Your task to perform on an android device: install app "DoorDash - Food Delivery" Image 0: 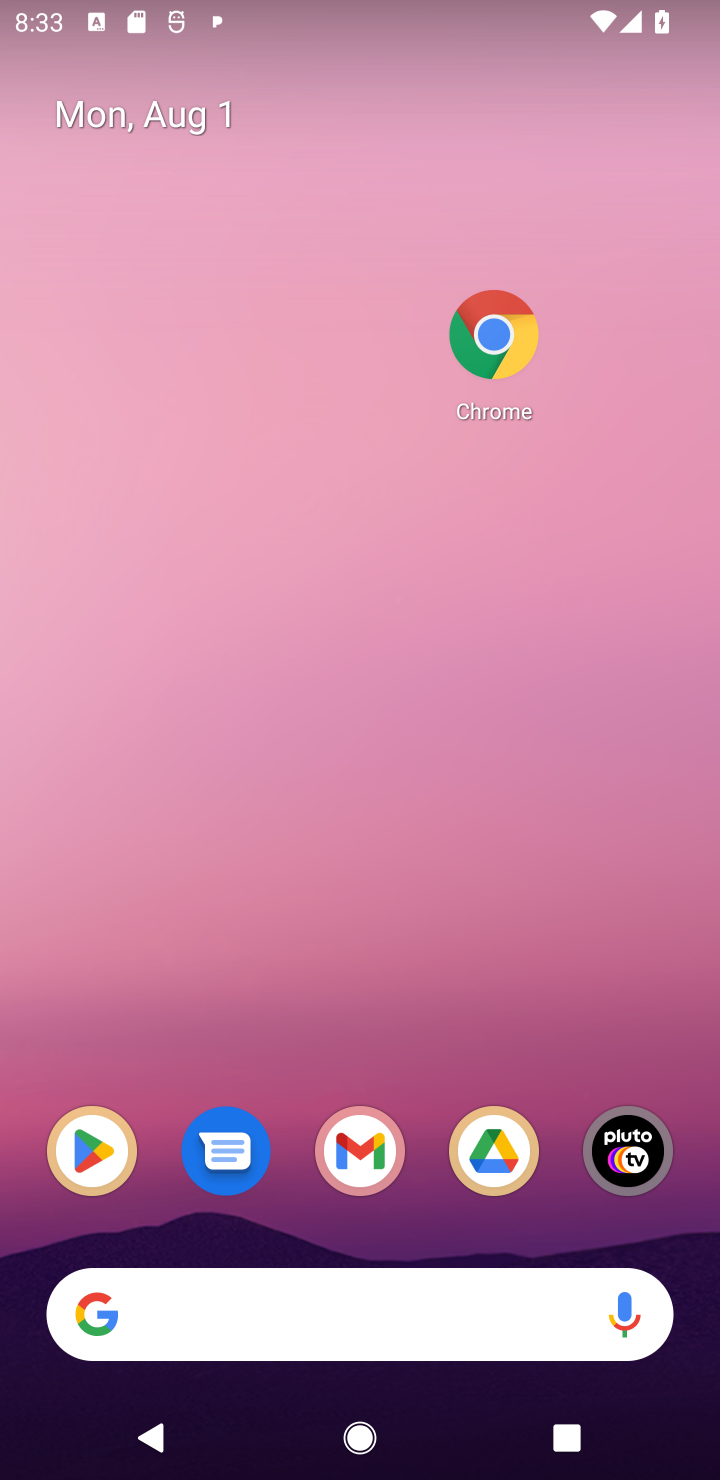
Step 0: click (95, 1168)
Your task to perform on an android device: install app "DoorDash - Food Delivery" Image 1: 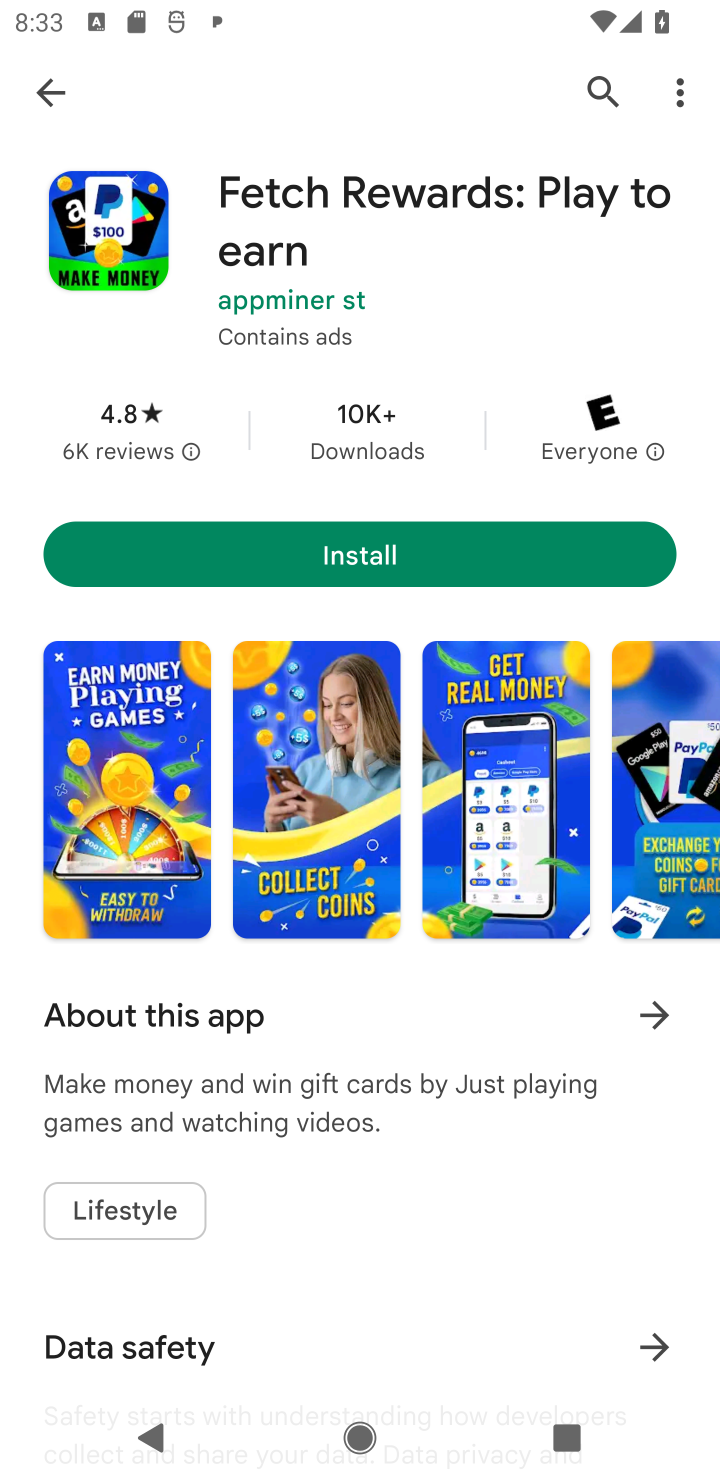
Step 1: click (599, 84)
Your task to perform on an android device: install app "DoorDash - Food Delivery" Image 2: 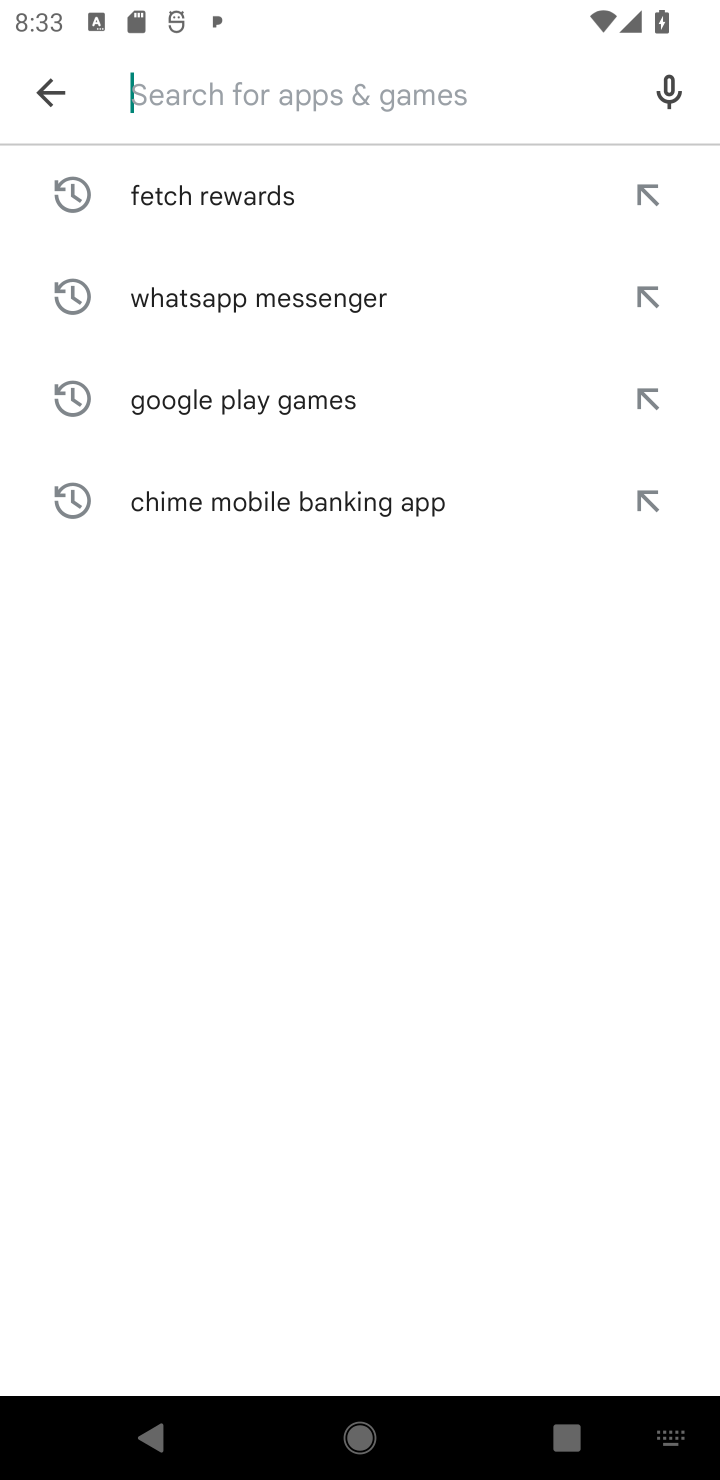
Step 2: type "DoorDash - Food Delivery"
Your task to perform on an android device: install app "DoorDash - Food Delivery" Image 3: 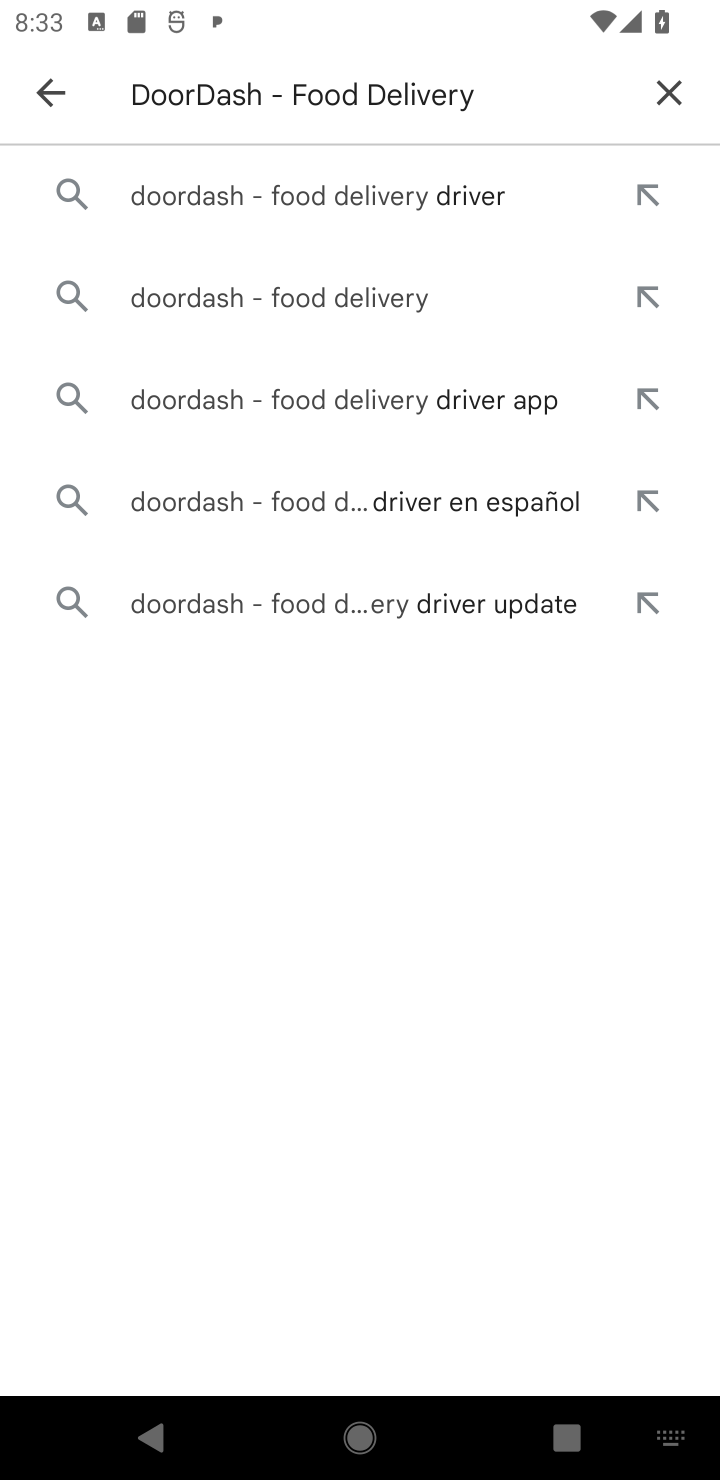
Step 3: click (235, 201)
Your task to perform on an android device: install app "DoorDash - Food Delivery" Image 4: 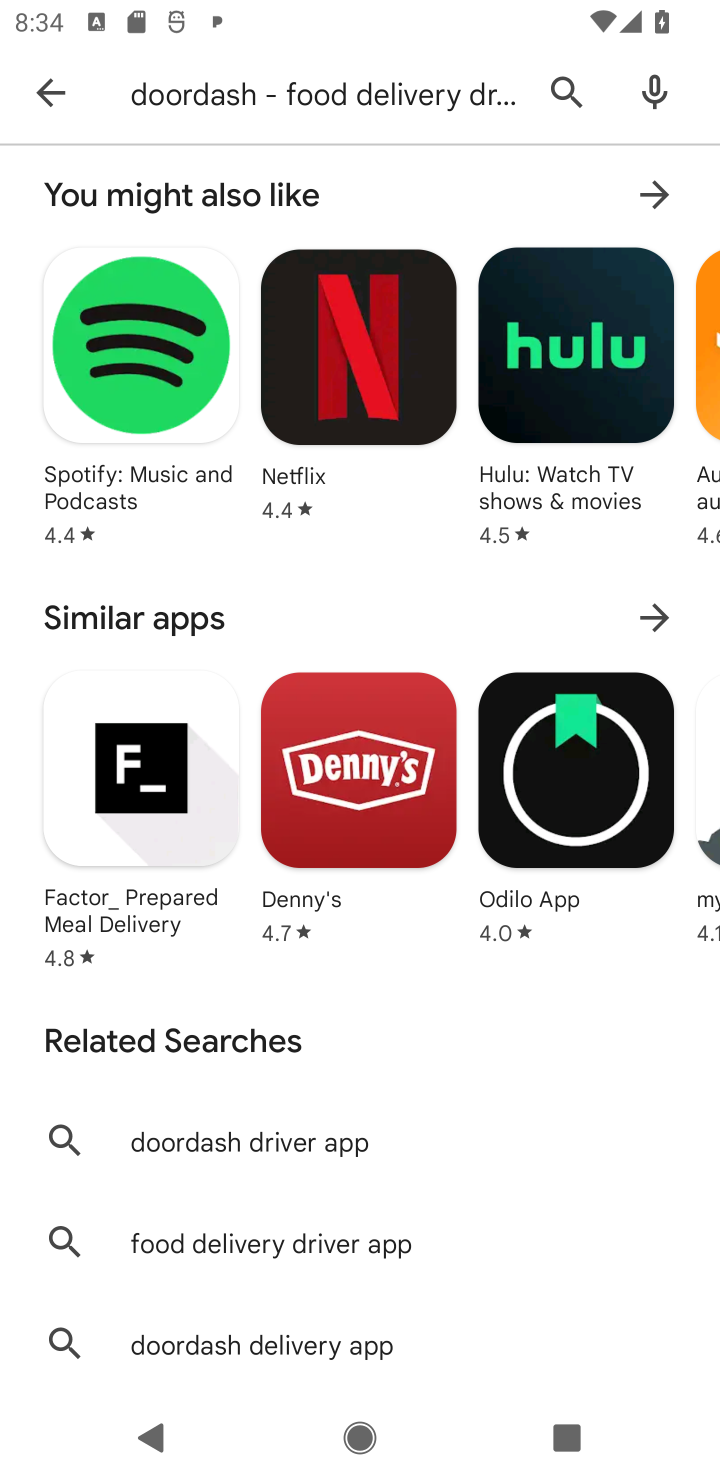
Step 4: click (510, 102)
Your task to perform on an android device: install app "DoorDash - Food Delivery" Image 5: 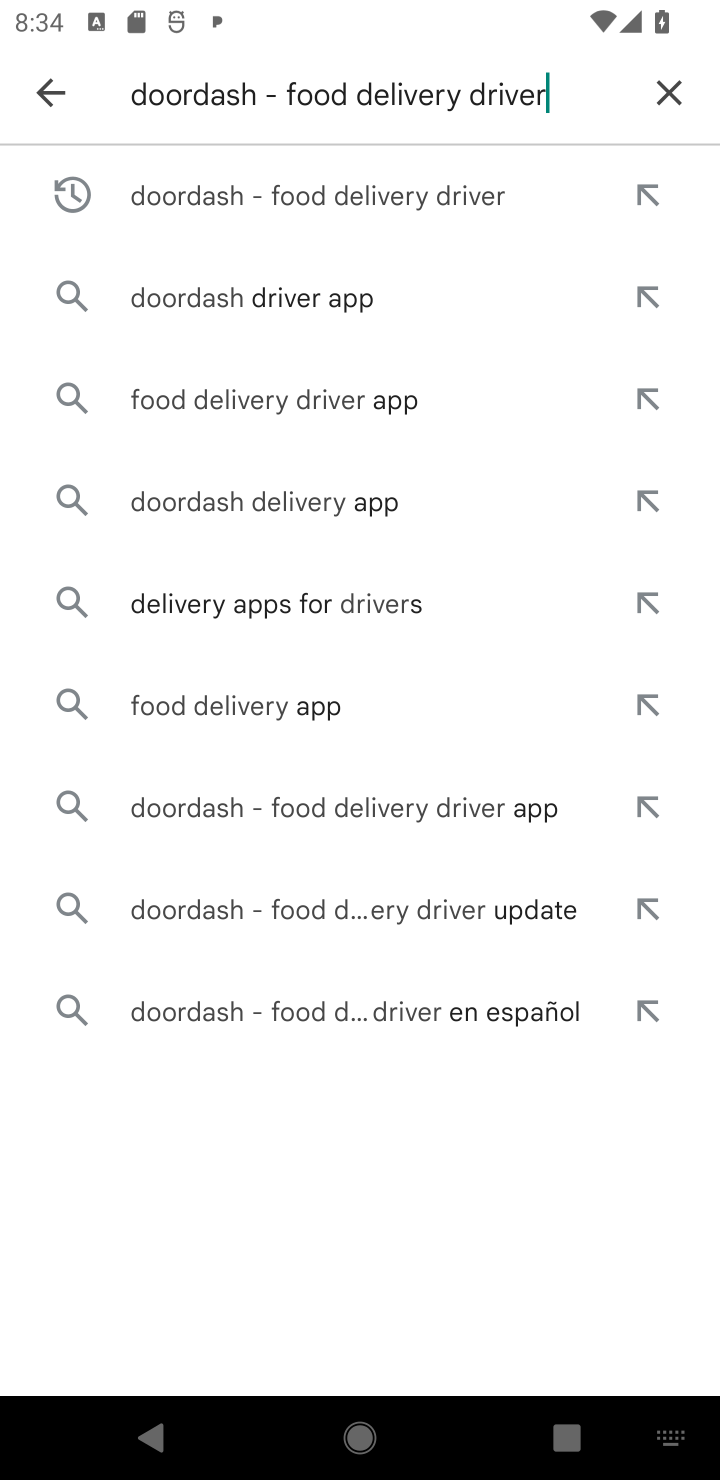
Step 5: click (281, 197)
Your task to perform on an android device: install app "DoorDash - Food Delivery" Image 6: 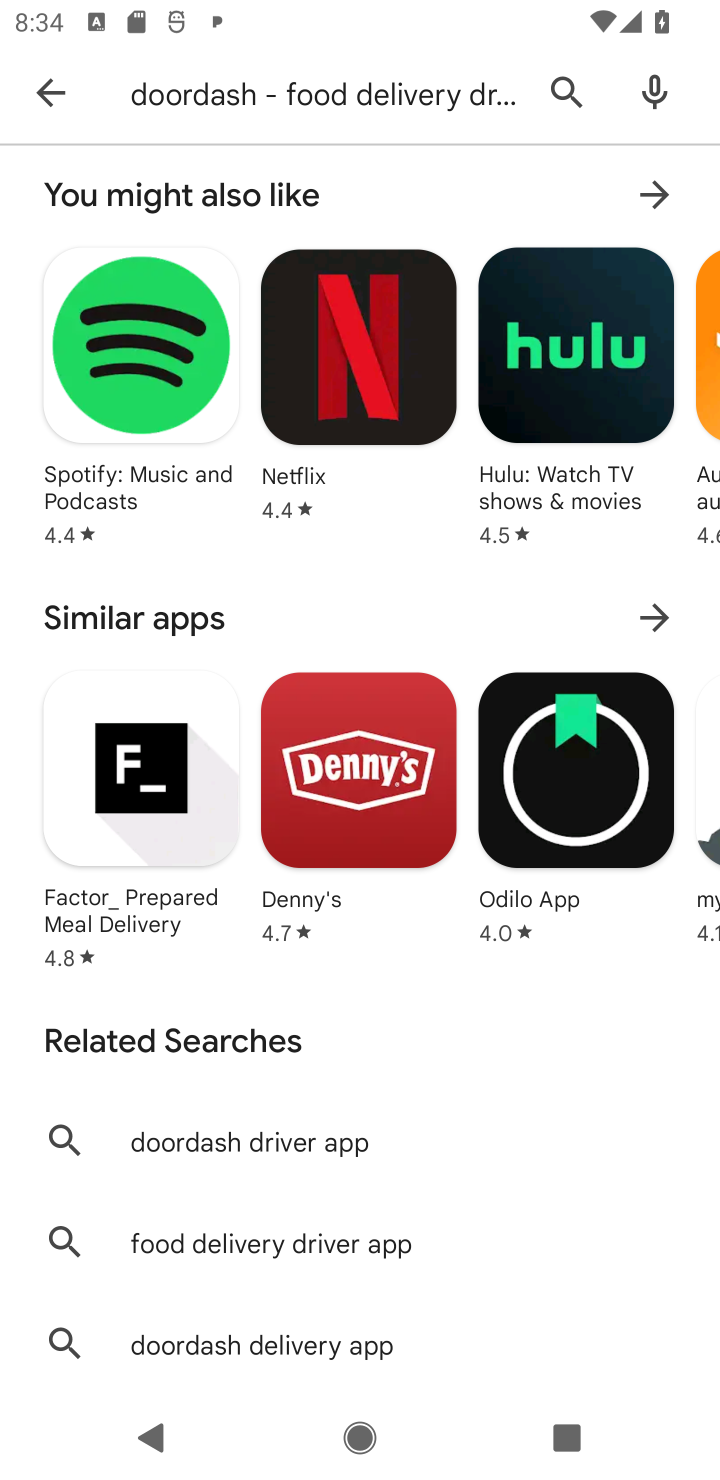
Step 6: drag from (471, 1033) to (503, 519)
Your task to perform on an android device: install app "DoorDash - Food Delivery" Image 7: 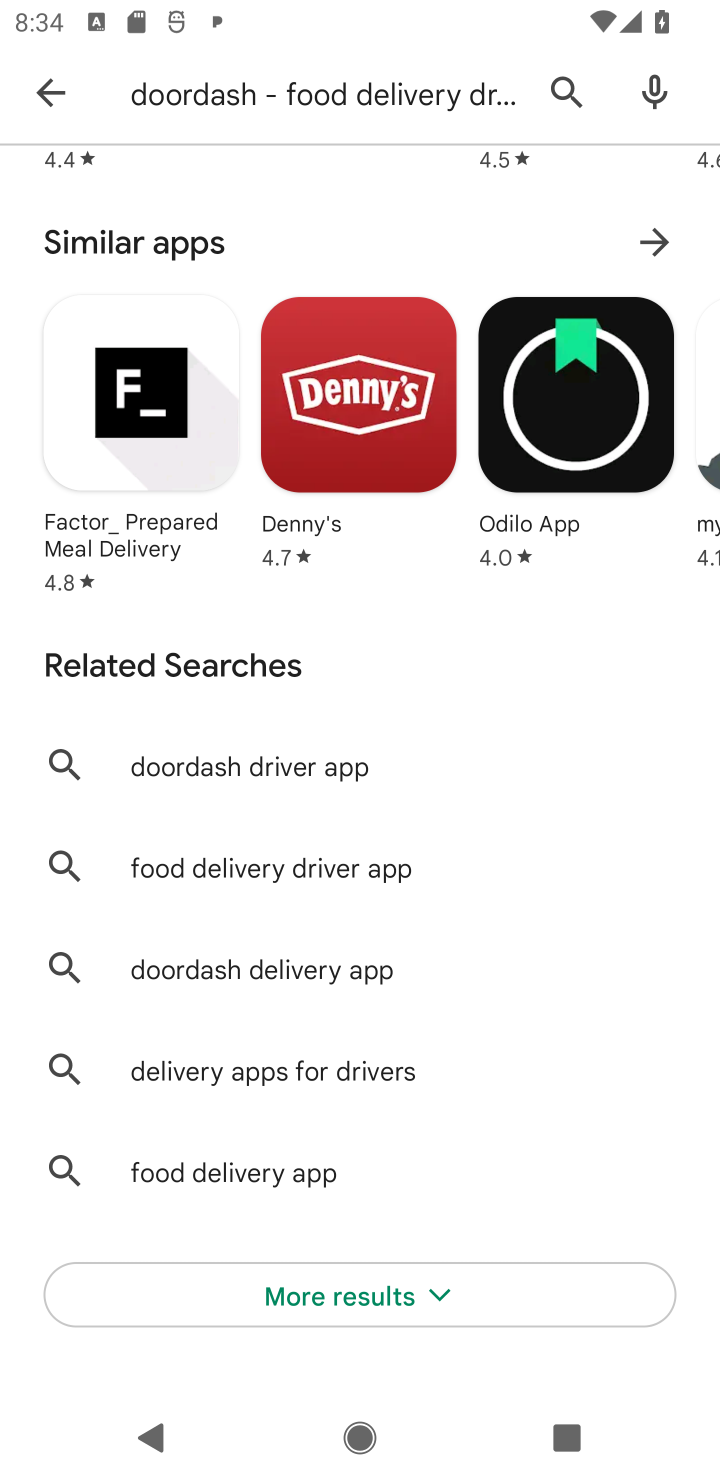
Step 7: drag from (512, 702) to (534, 1041)
Your task to perform on an android device: install app "DoorDash - Food Delivery" Image 8: 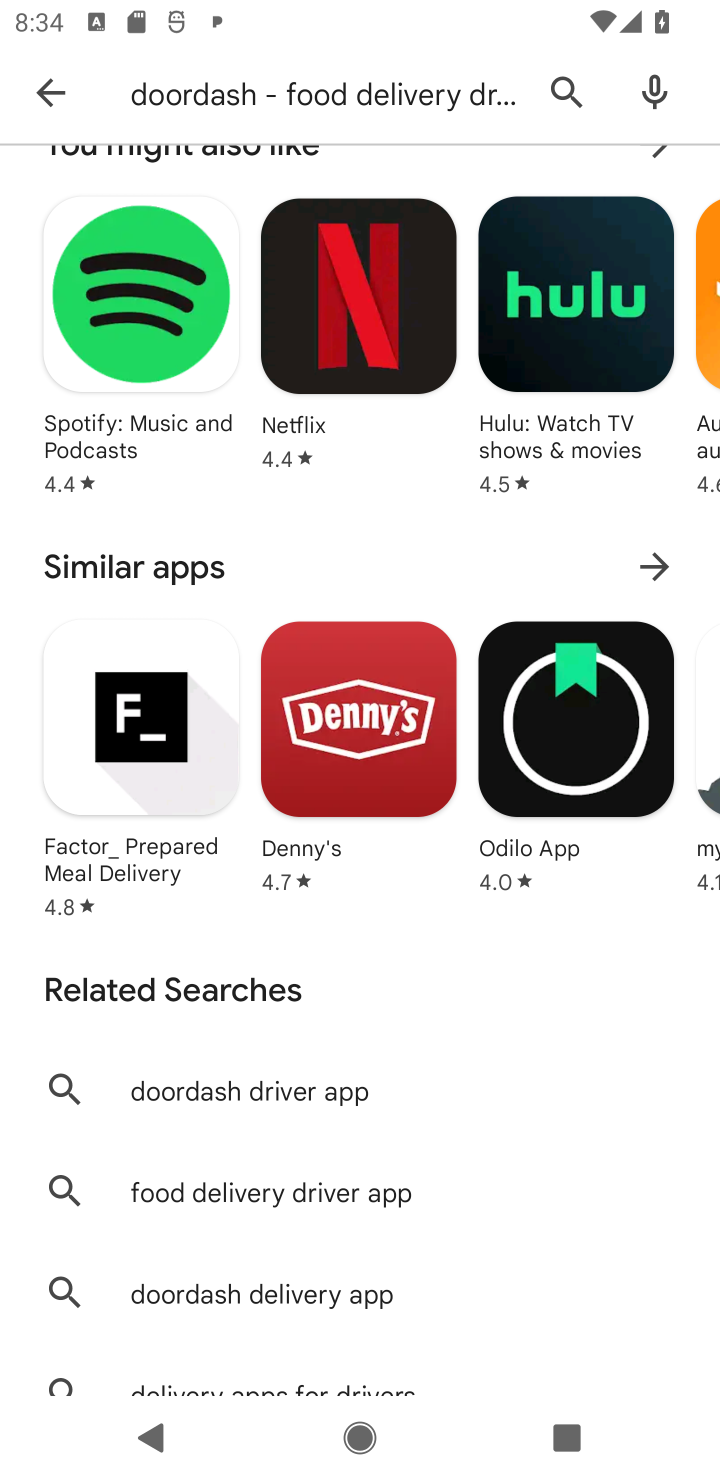
Step 8: drag from (273, 461) to (199, 1095)
Your task to perform on an android device: install app "DoorDash - Food Delivery" Image 9: 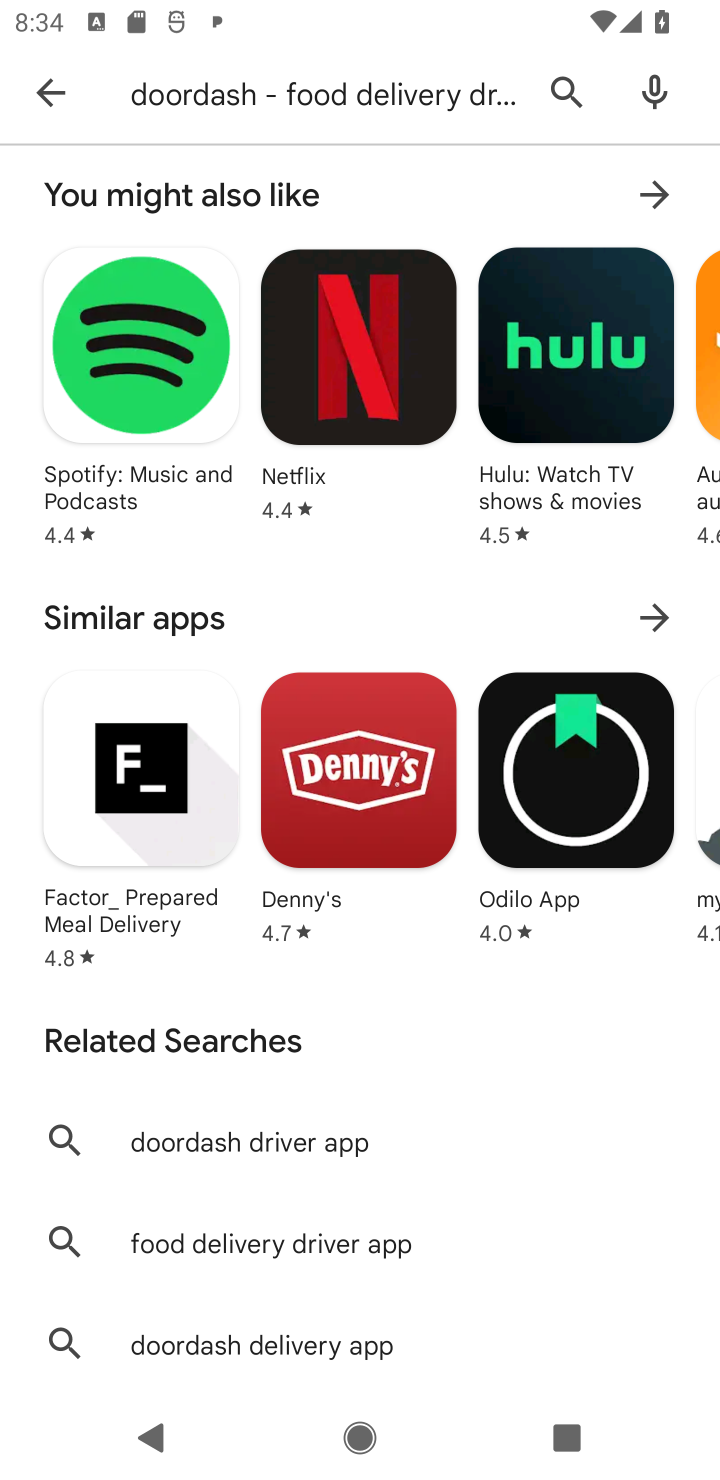
Step 9: drag from (363, 200) to (349, 666)
Your task to perform on an android device: install app "DoorDash - Food Delivery" Image 10: 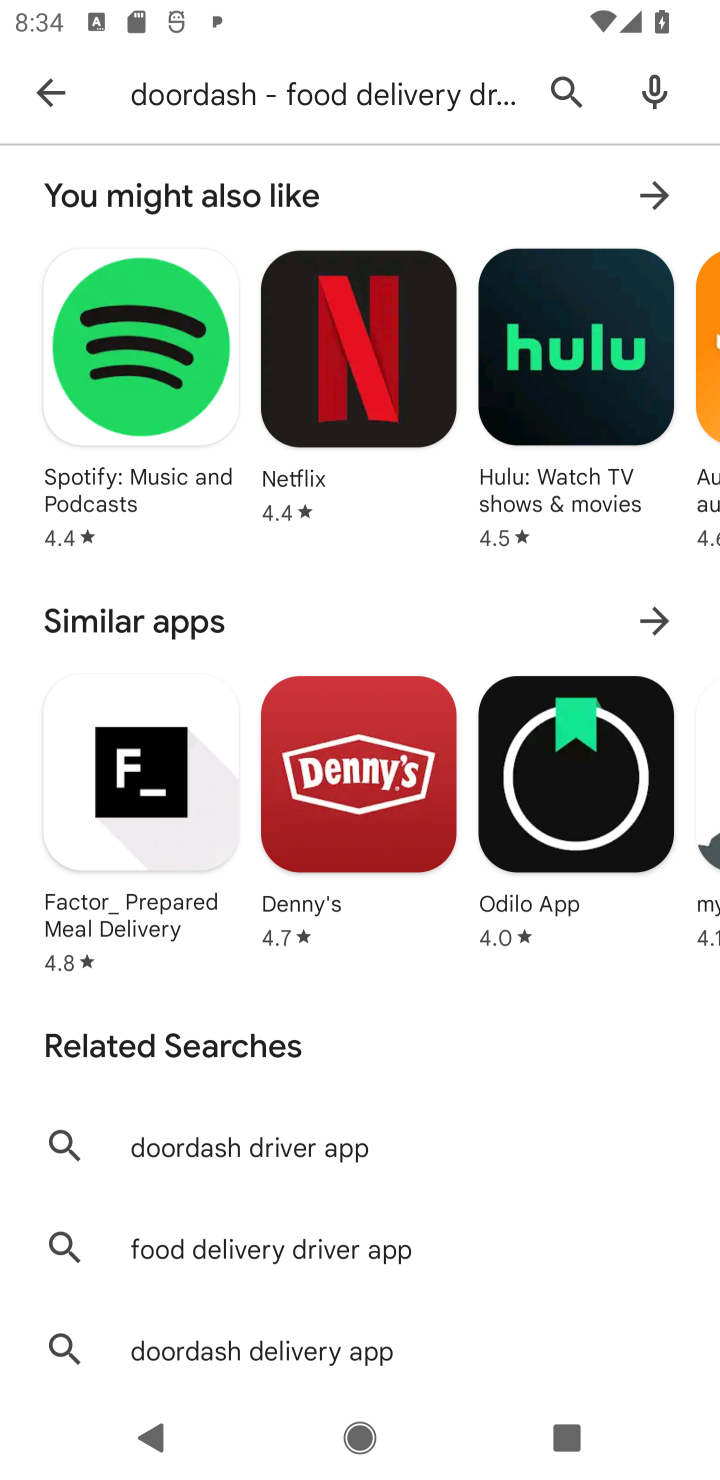
Step 10: drag from (594, 413) to (0, 404)
Your task to perform on an android device: install app "DoorDash - Food Delivery" Image 11: 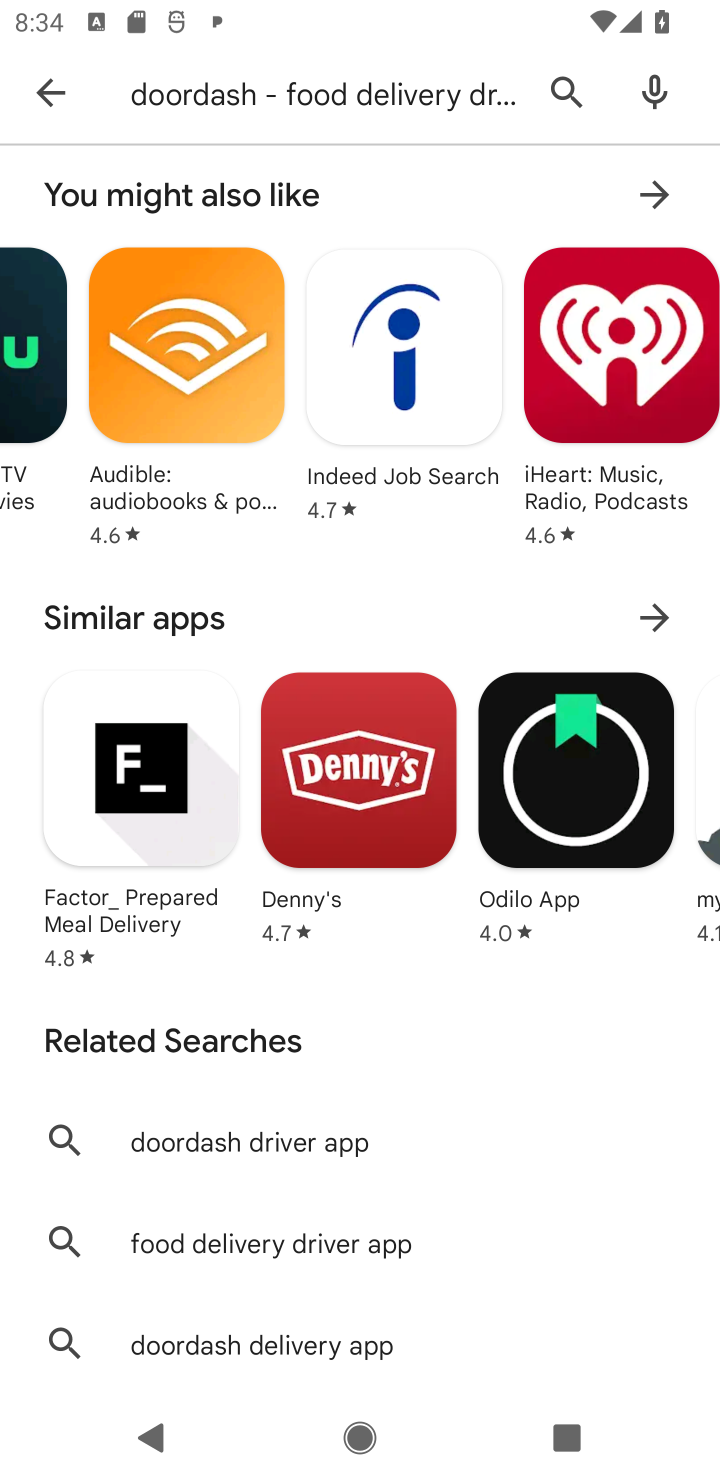
Step 11: drag from (577, 380) to (26, 299)
Your task to perform on an android device: install app "DoorDash - Food Delivery" Image 12: 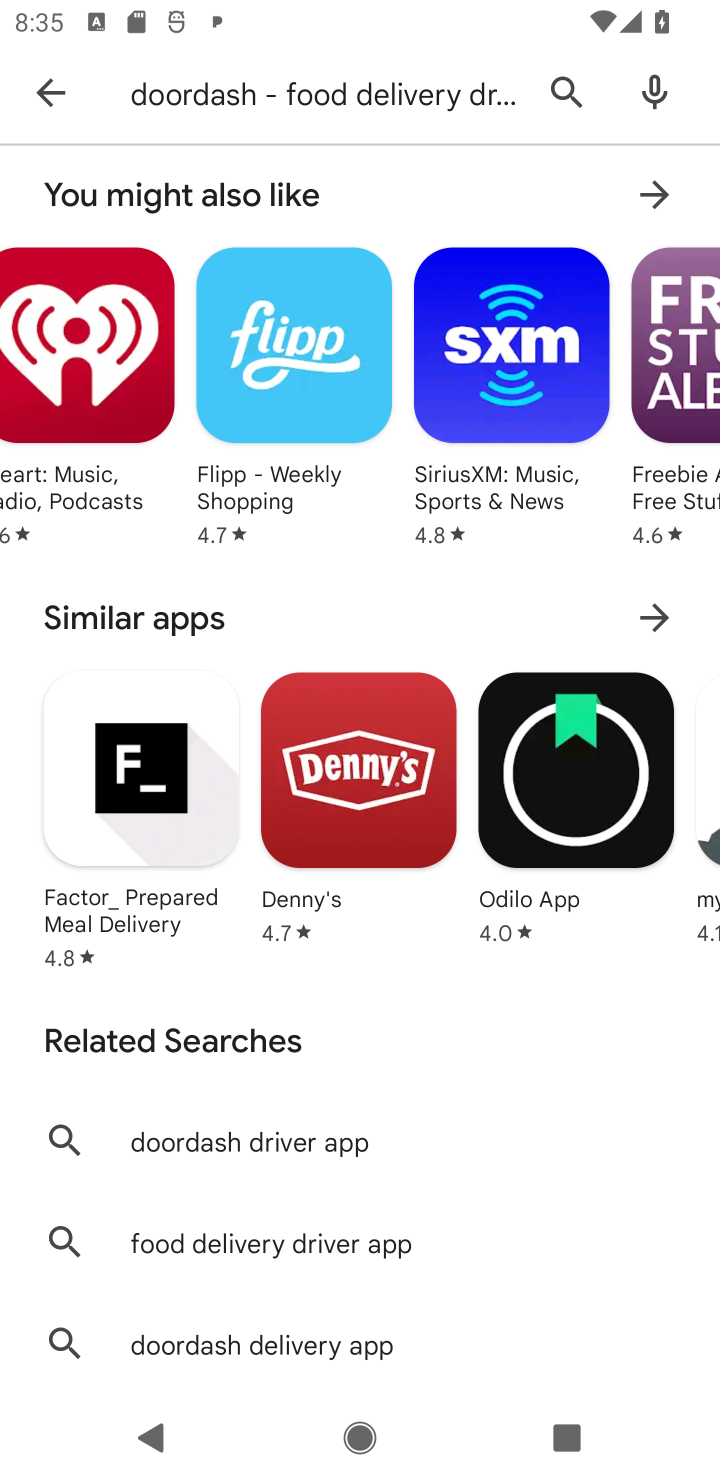
Step 12: drag from (610, 346) to (27, 505)
Your task to perform on an android device: install app "DoorDash - Food Delivery" Image 13: 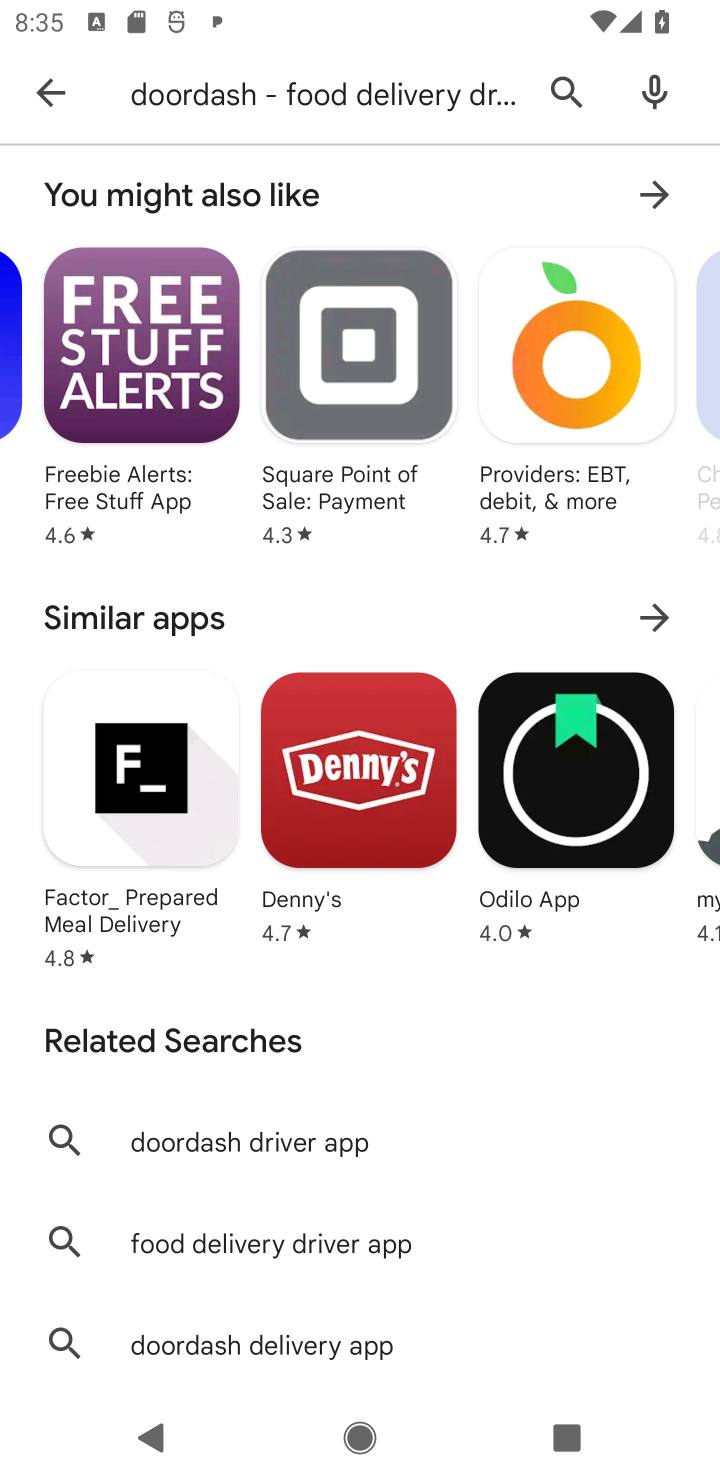
Step 13: drag from (340, 779) to (3, 486)
Your task to perform on an android device: install app "DoorDash - Food Delivery" Image 14: 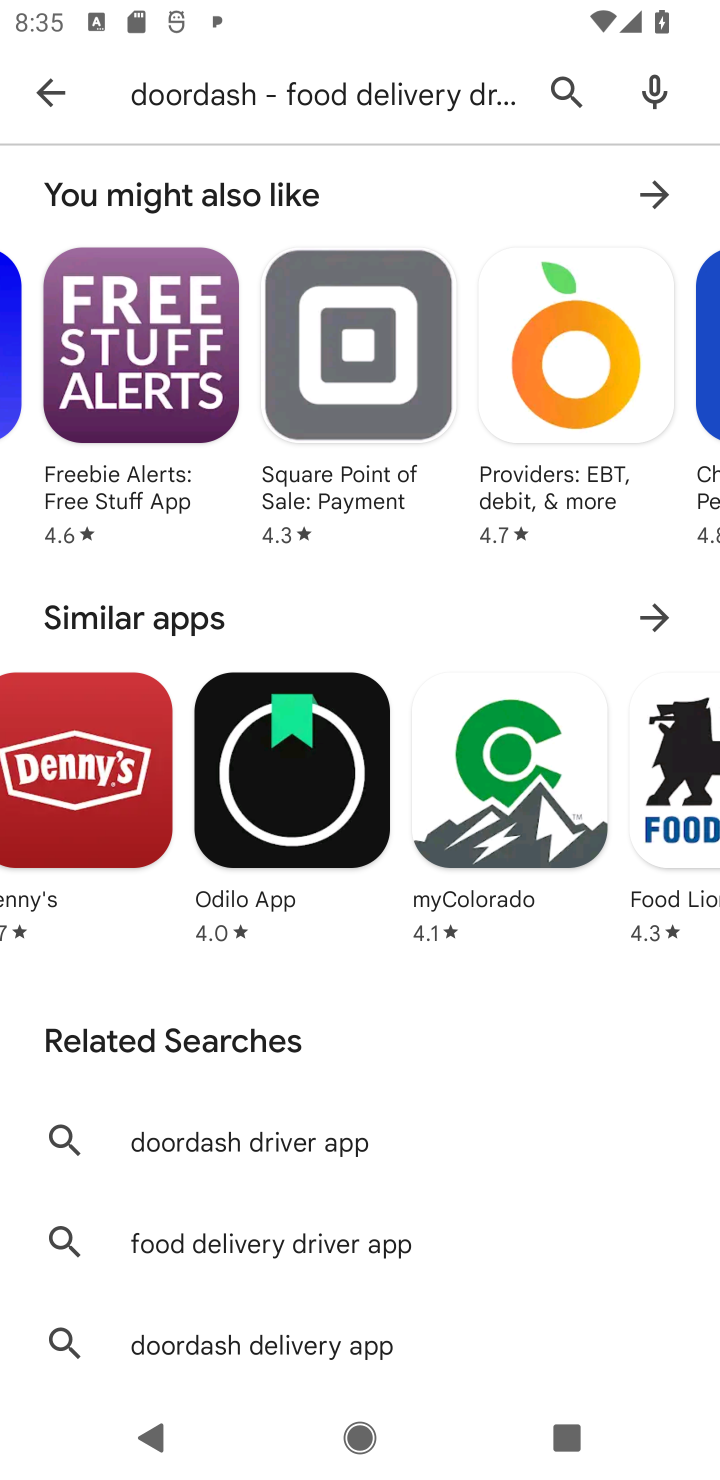
Step 14: drag from (591, 407) to (33, 381)
Your task to perform on an android device: install app "DoorDash - Food Delivery" Image 15: 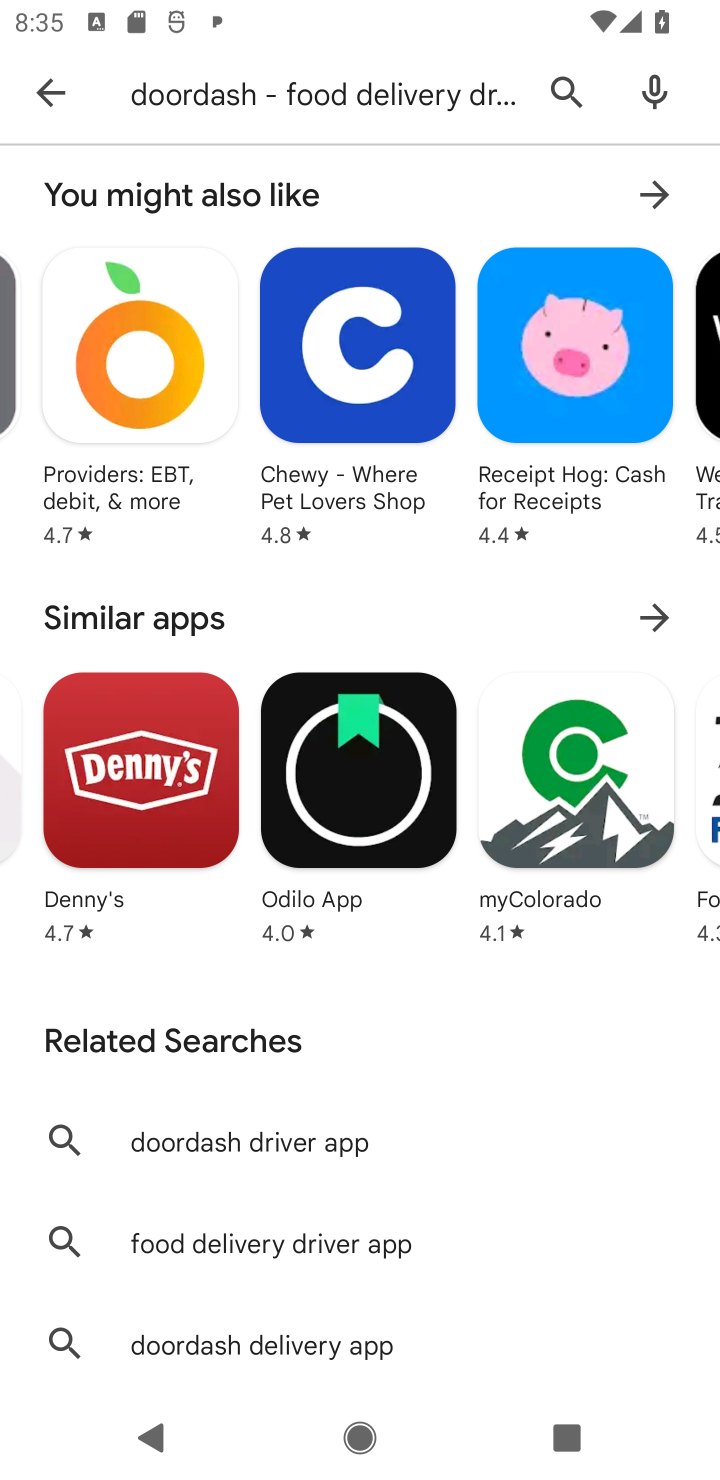
Step 15: click (381, 104)
Your task to perform on an android device: install app "DoorDash - Food Delivery" Image 16: 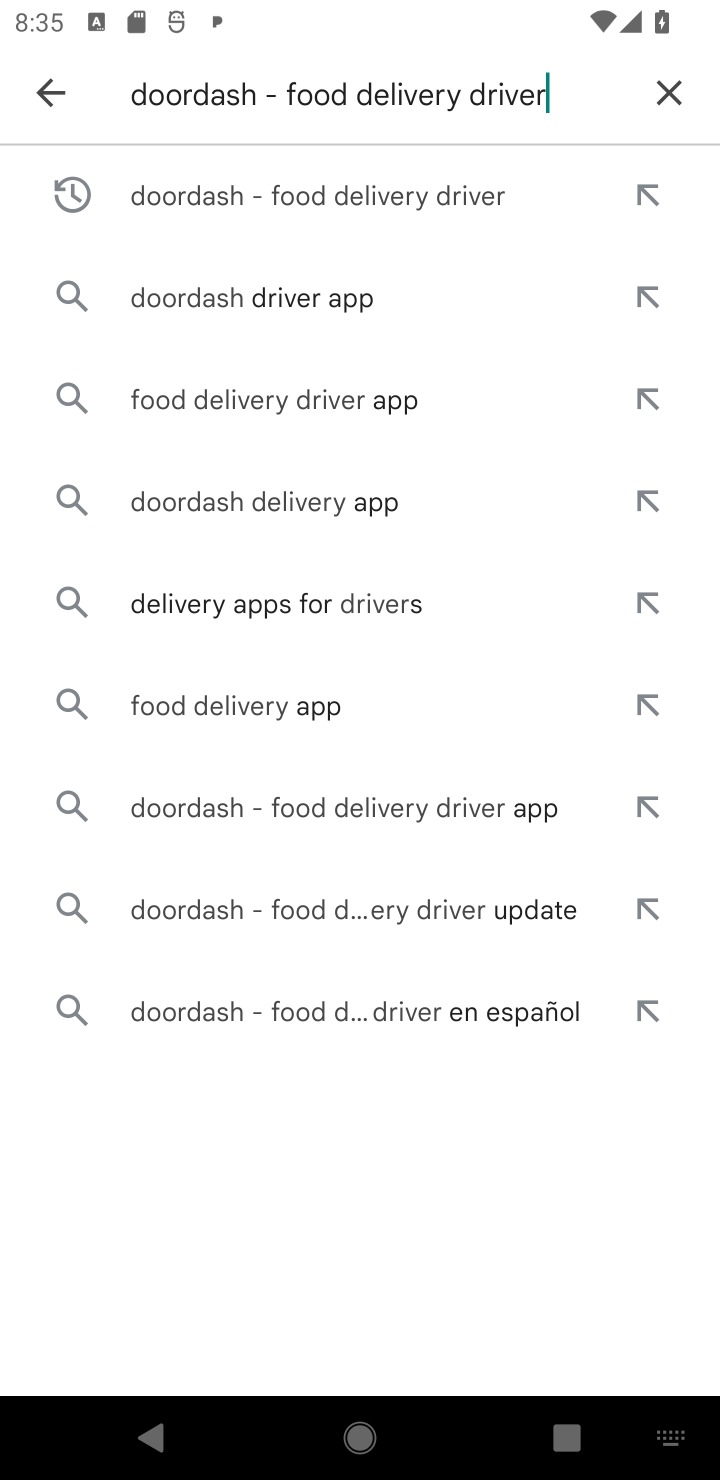
Step 16: click (348, 200)
Your task to perform on an android device: install app "DoorDash - Food Delivery" Image 17: 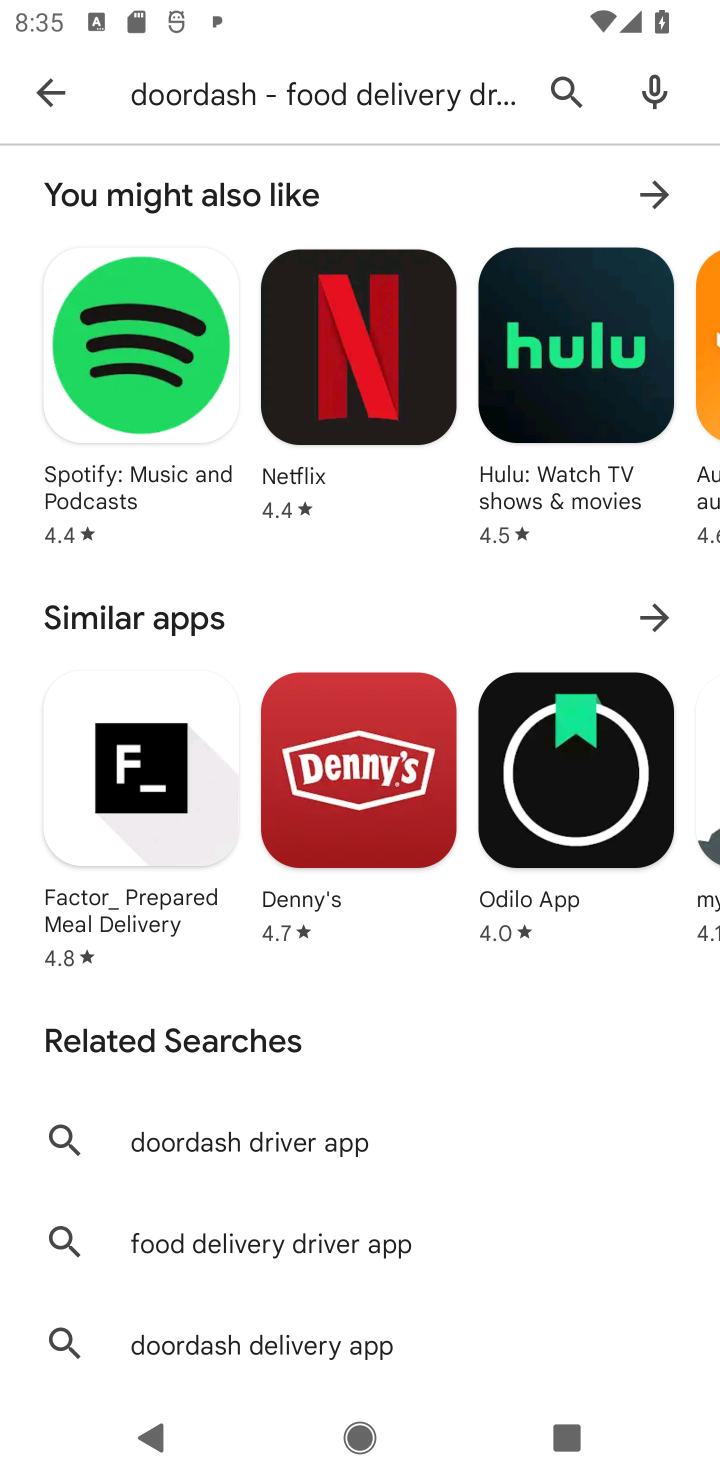
Step 17: task complete